Your task to perform on an android device: Open the stopwatch Image 0: 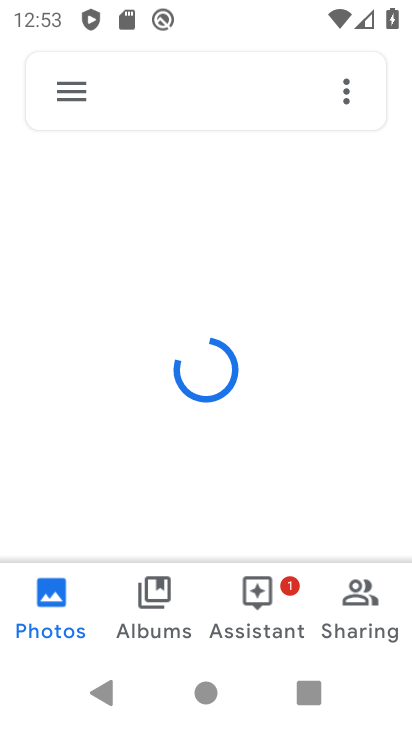
Step 0: press home button
Your task to perform on an android device: Open the stopwatch Image 1: 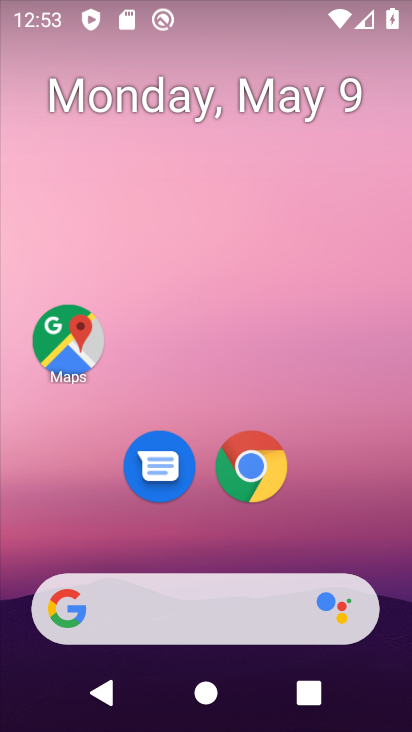
Step 1: drag from (265, 586) to (286, 201)
Your task to perform on an android device: Open the stopwatch Image 2: 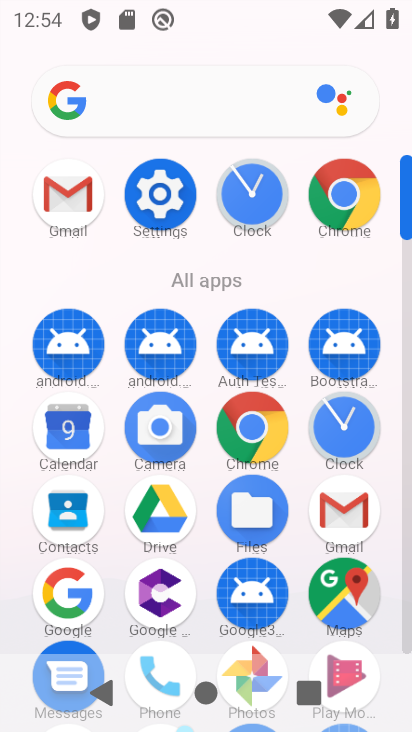
Step 2: click (358, 440)
Your task to perform on an android device: Open the stopwatch Image 3: 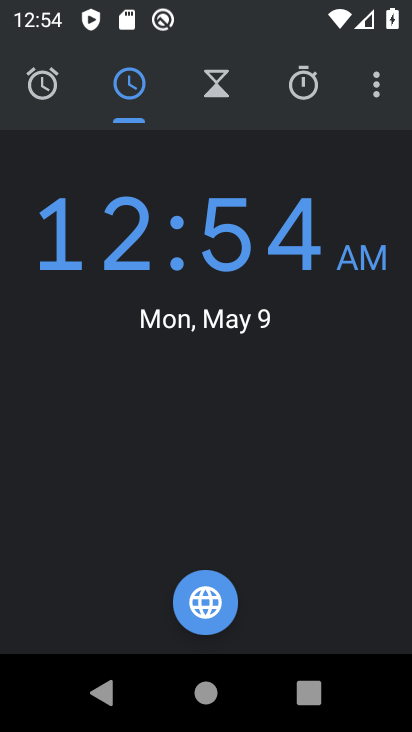
Step 3: click (284, 100)
Your task to perform on an android device: Open the stopwatch Image 4: 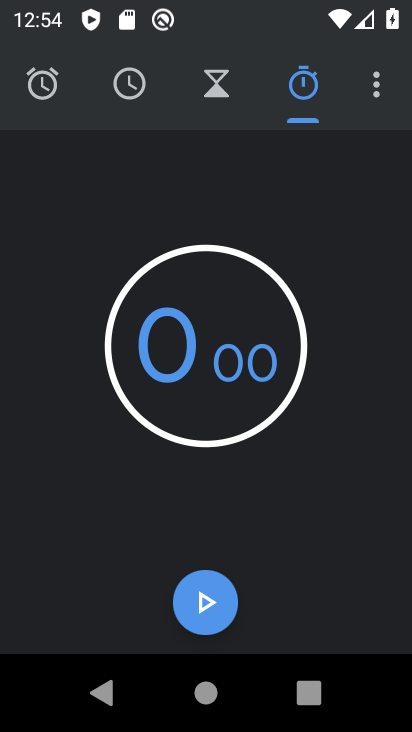
Step 4: click (229, 598)
Your task to perform on an android device: Open the stopwatch Image 5: 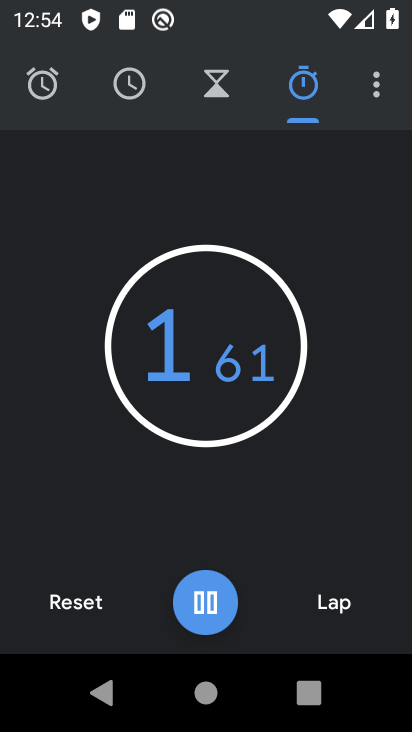
Step 5: click (219, 607)
Your task to perform on an android device: Open the stopwatch Image 6: 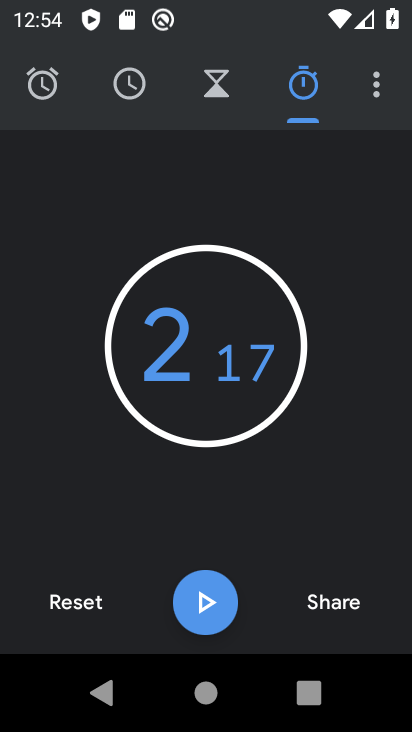
Step 6: task complete